Your task to perform on an android device: open a bookmark in the chrome app Image 0: 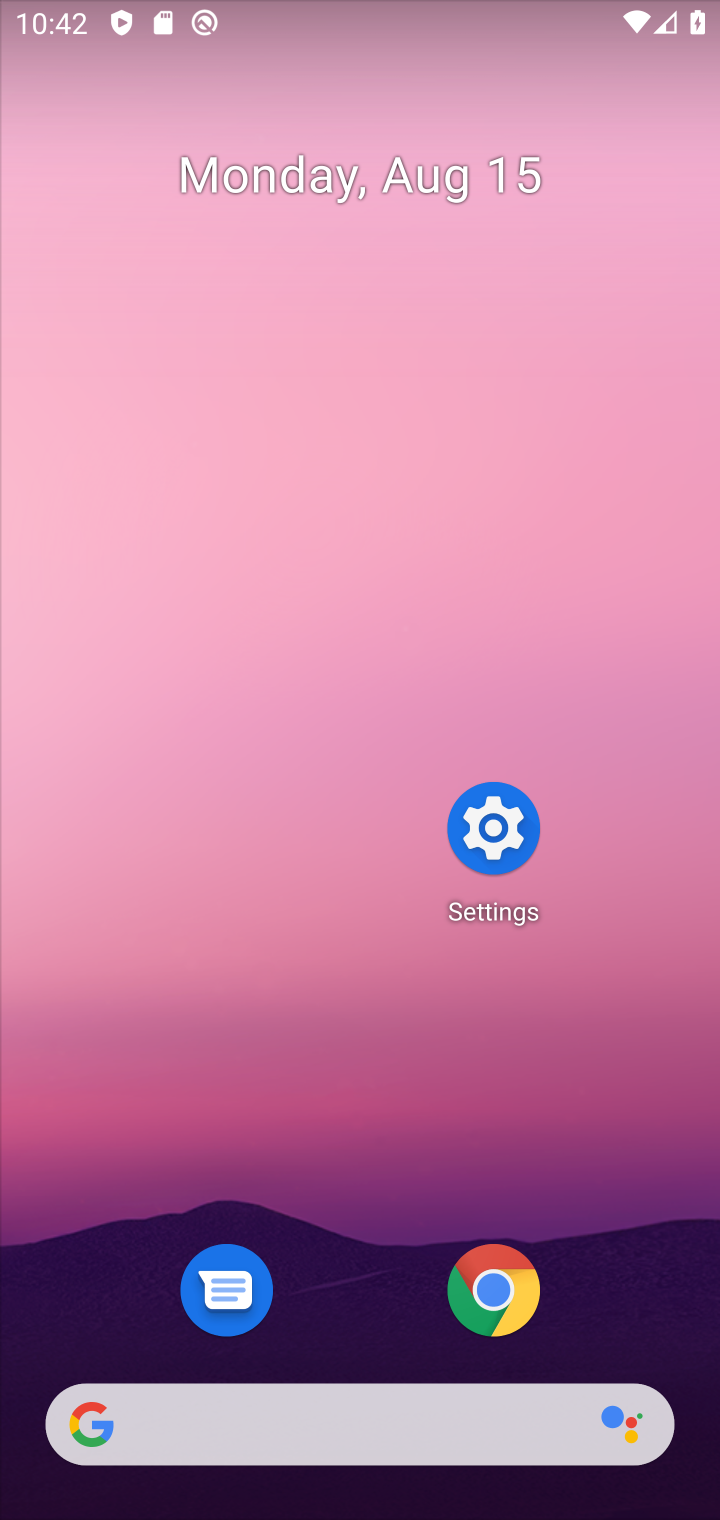
Step 0: press home button
Your task to perform on an android device: open a bookmark in the chrome app Image 1: 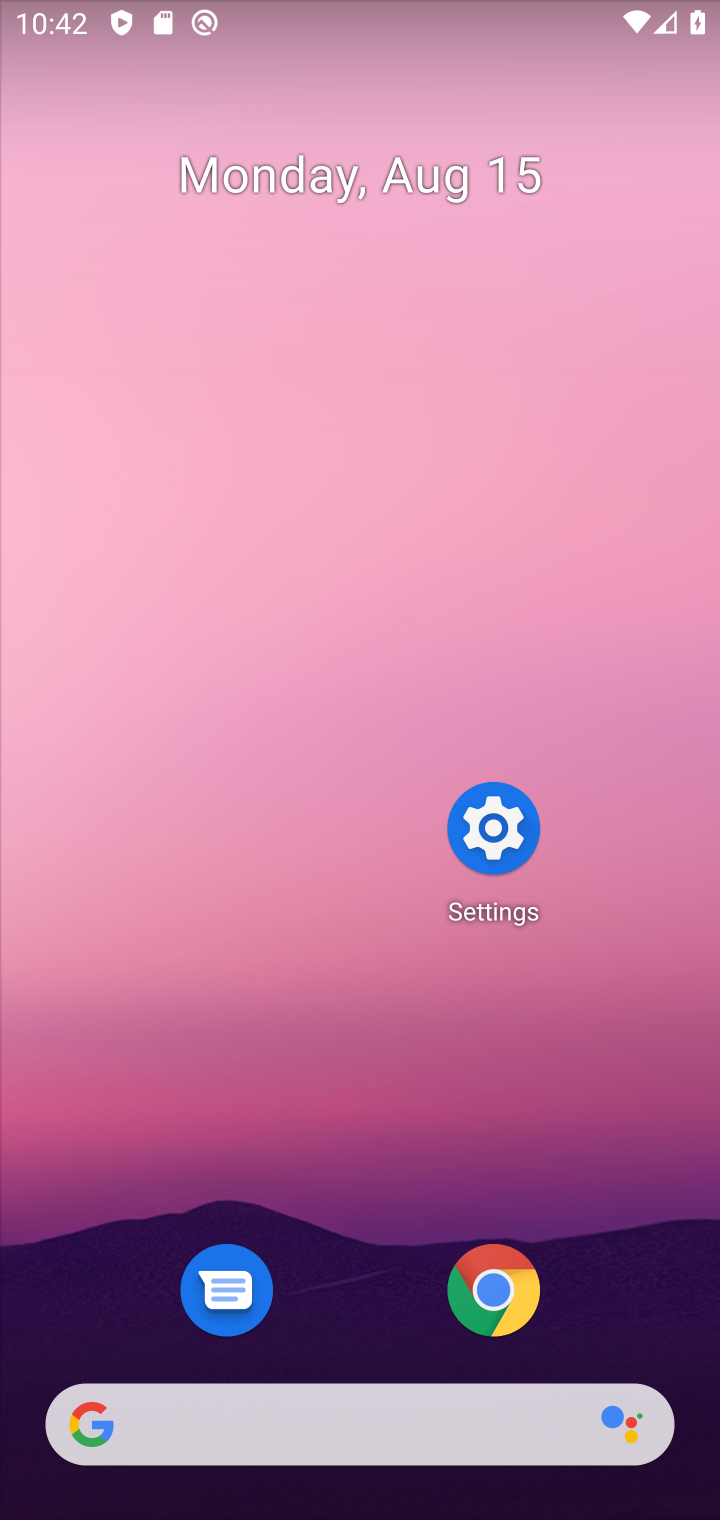
Step 1: click (486, 1299)
Your task to perform on an android device: open a bookmark in the chrome app Image 2: 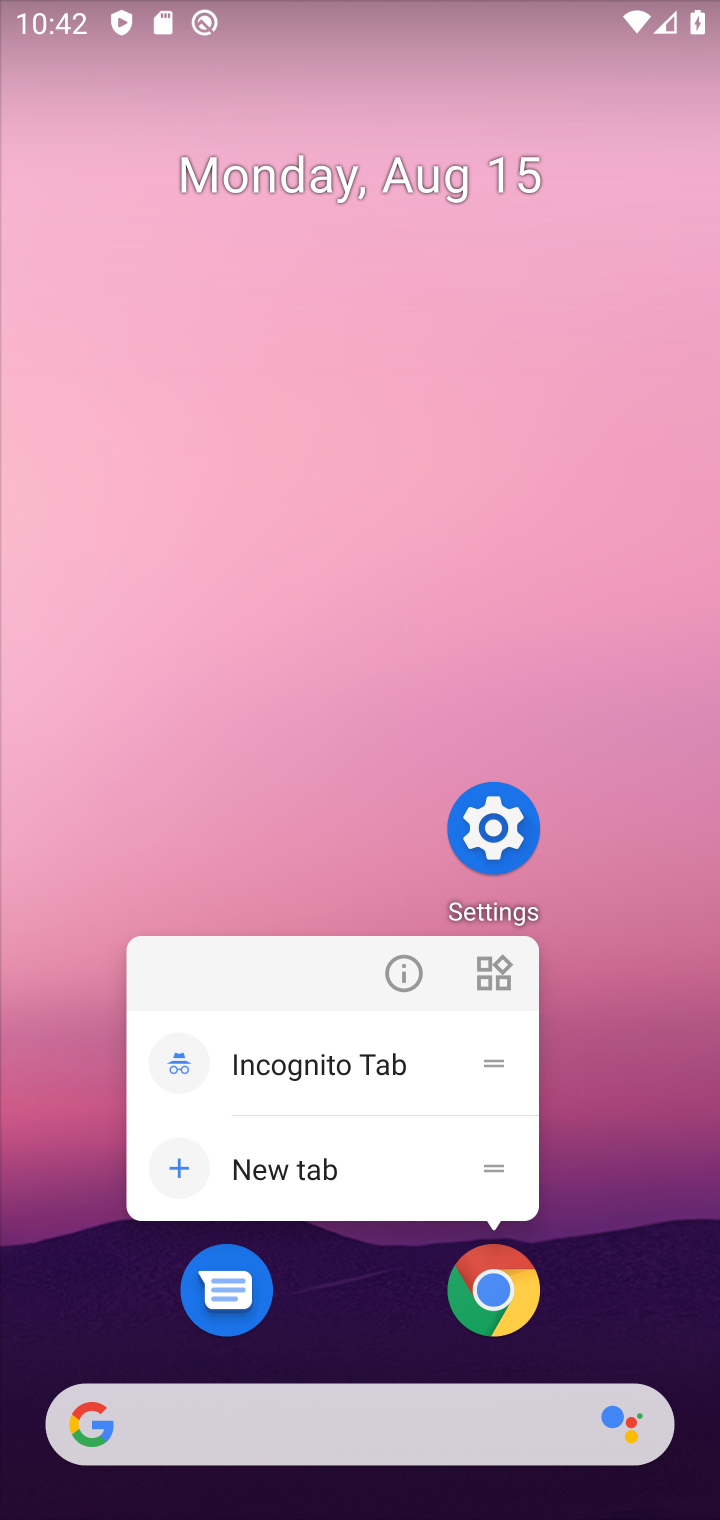
Step 2: click (482, 1297)
Your task to perform on an android device: open a bookmark in the chrome app Image 3: 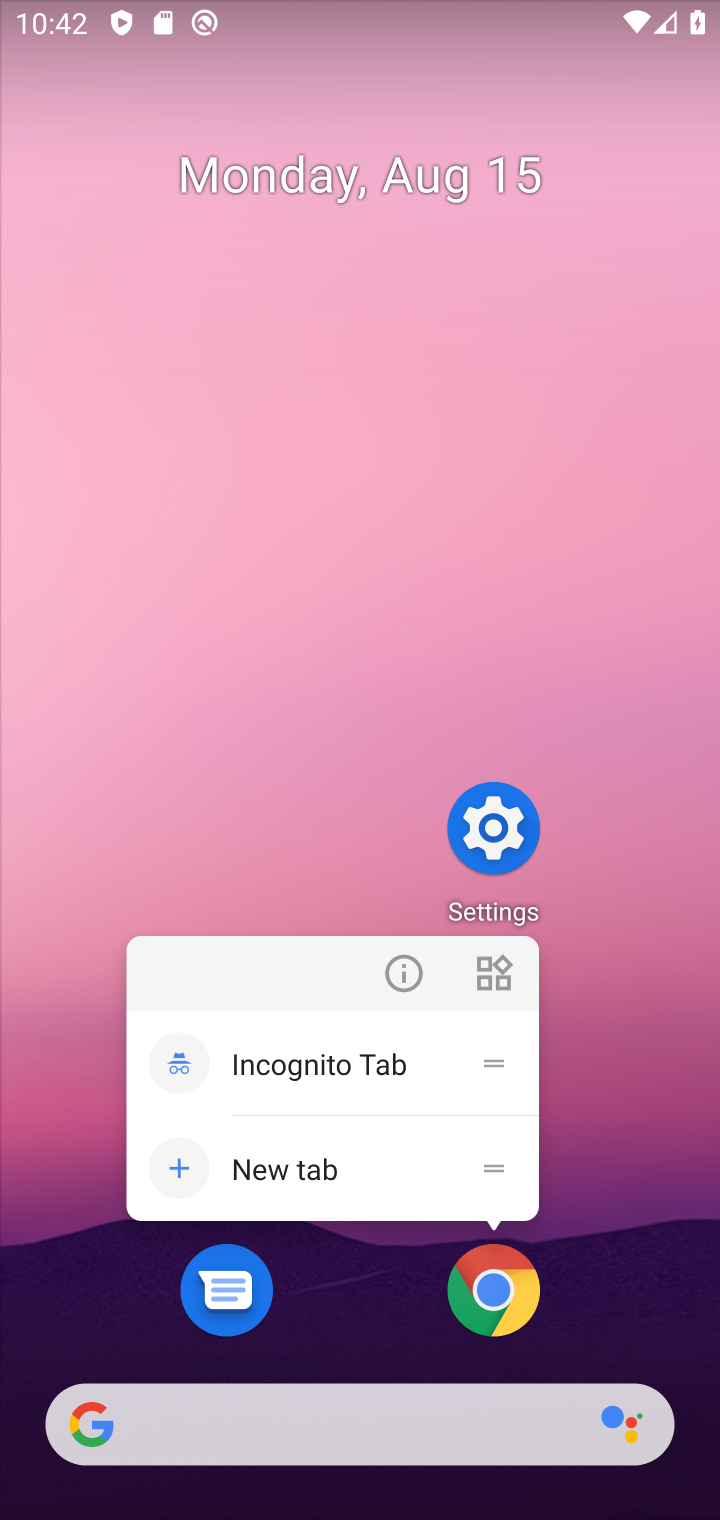
Step 3: click (497, 1297)
Your task to perform on an android device: open a bookmark in the chrome app Image 4: 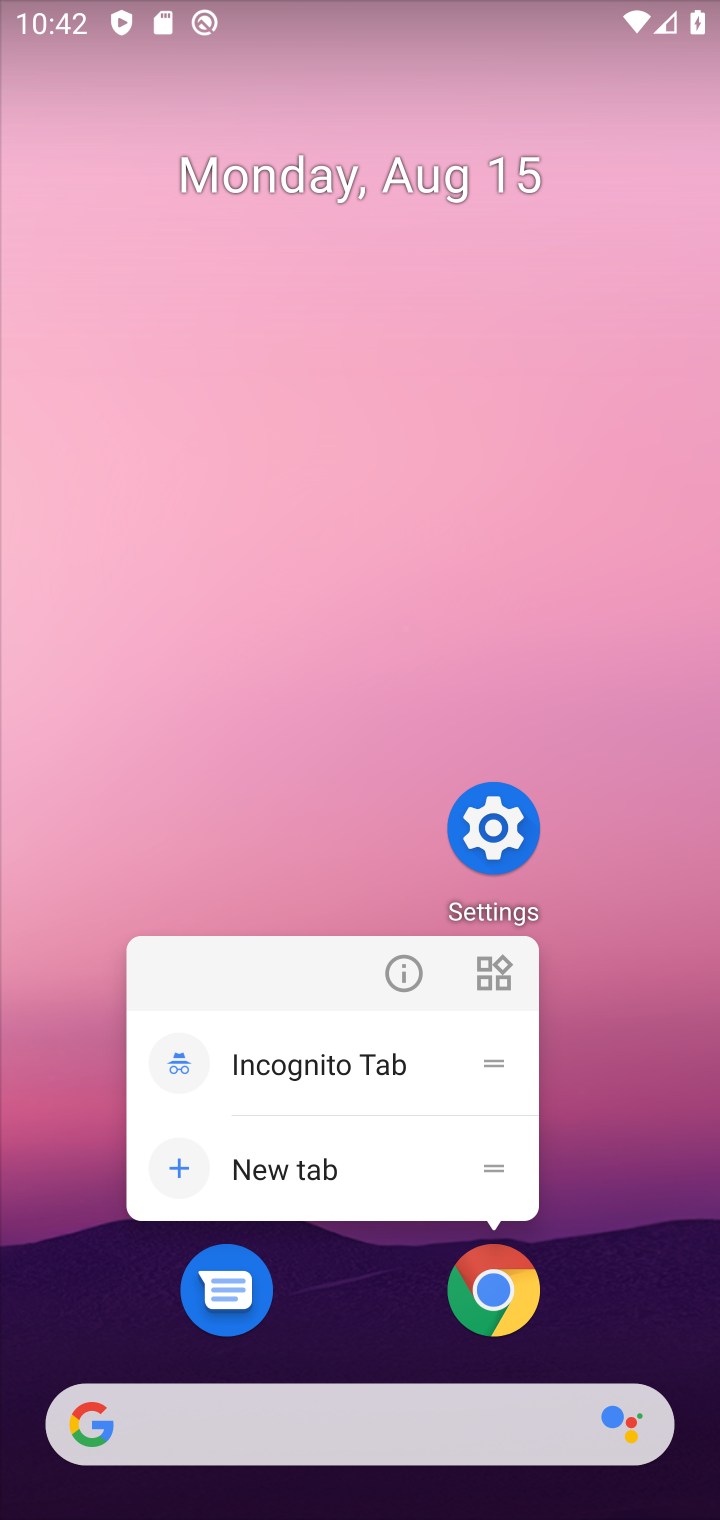
Step 4: click (497, 1297)
Your task to perform on an android device: open a bookmark in the chrome app Image 5: 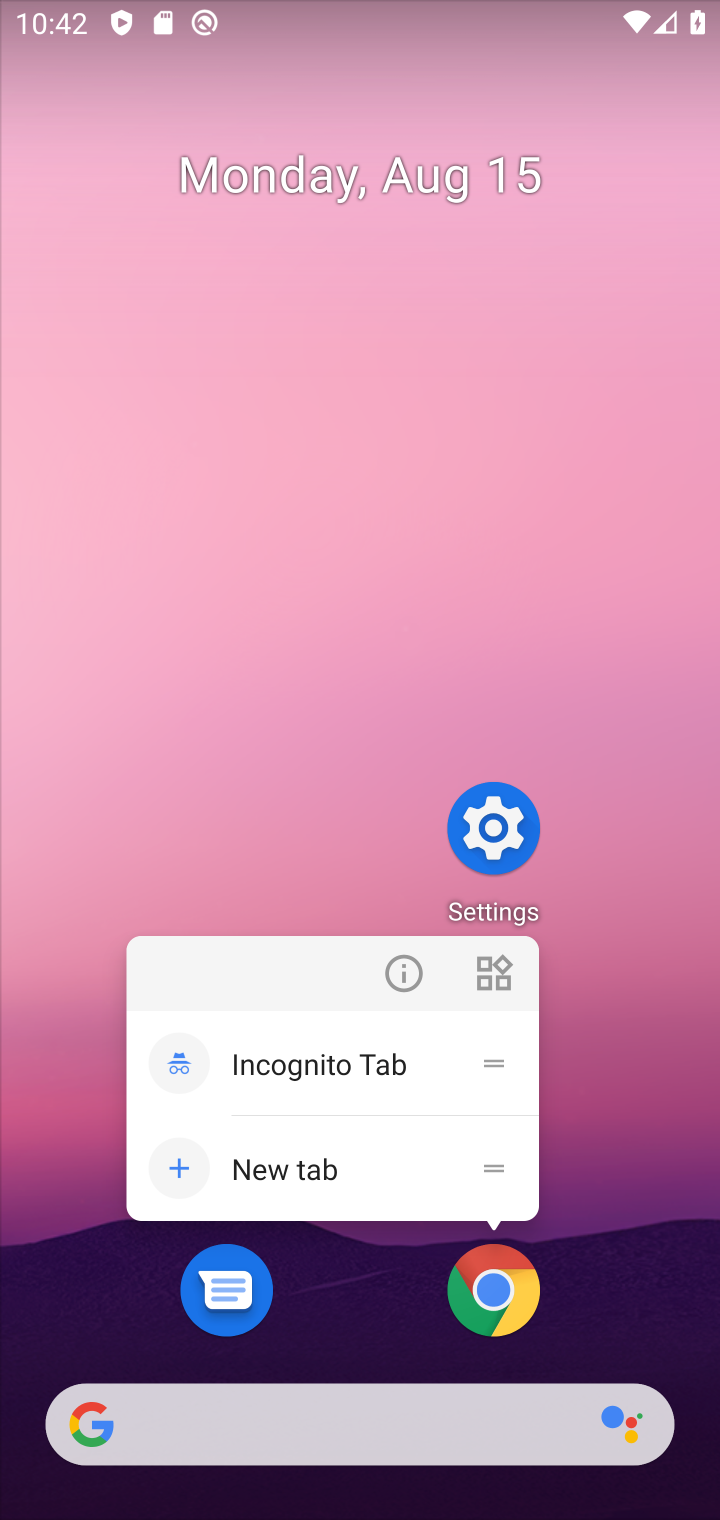
Step 5: click (497, 1297)
Your task to perform on an android device: open a bookmark in the chrome app Image 6: 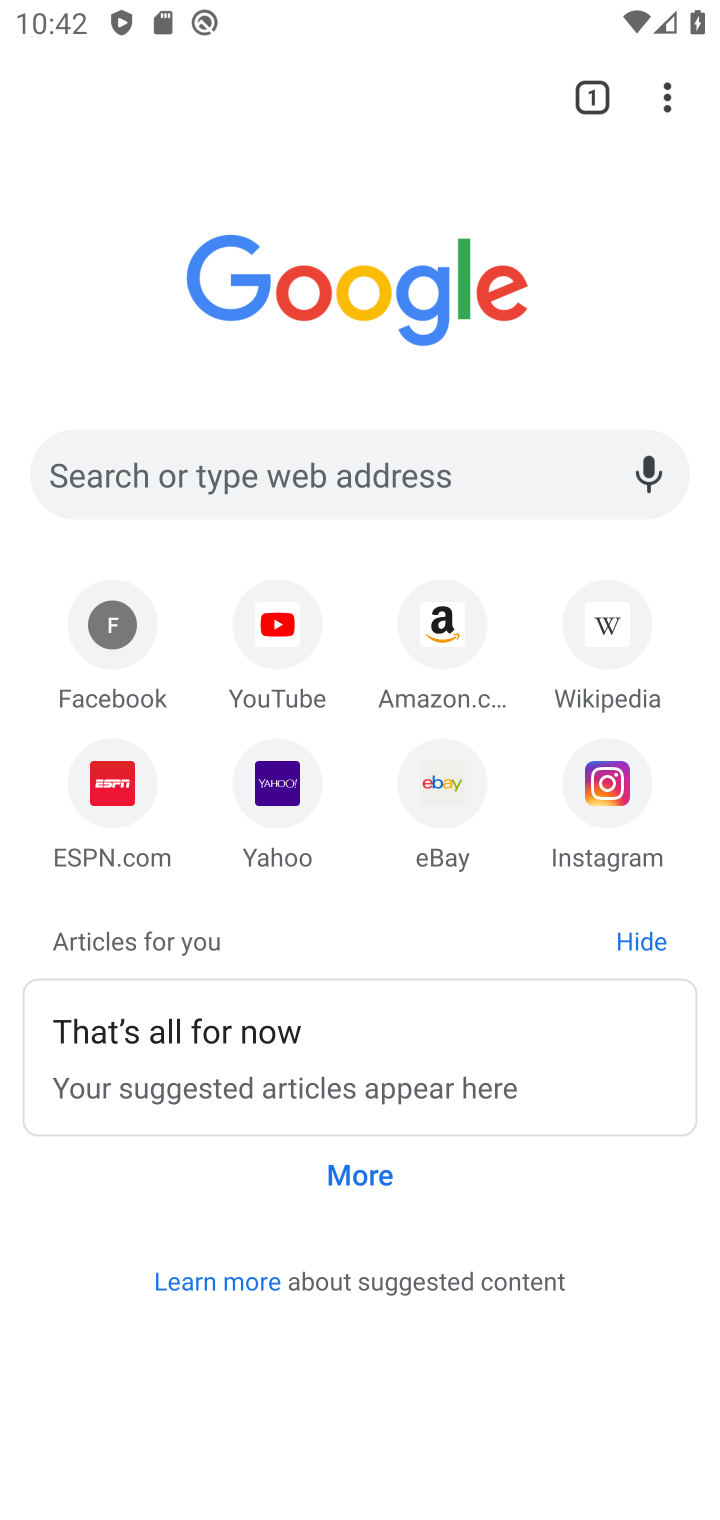
Step 6: task complete